Your task to perform on an android device: change the clock display to digital Image 0: 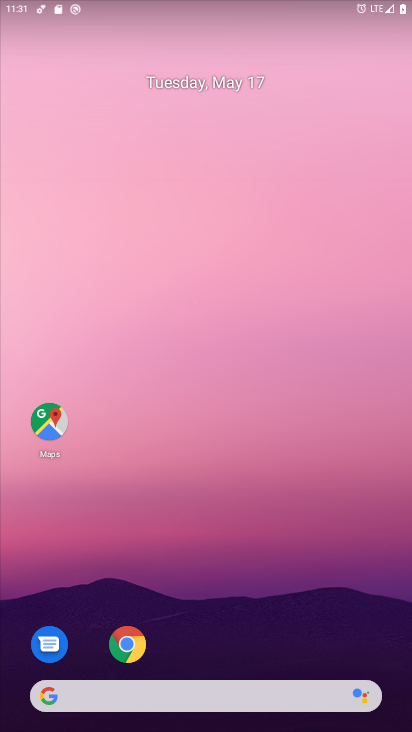
Step 0: drag from (211, 651) to (211, 1)
Your task to perform on an android device: change the clock display to digital Image 1: 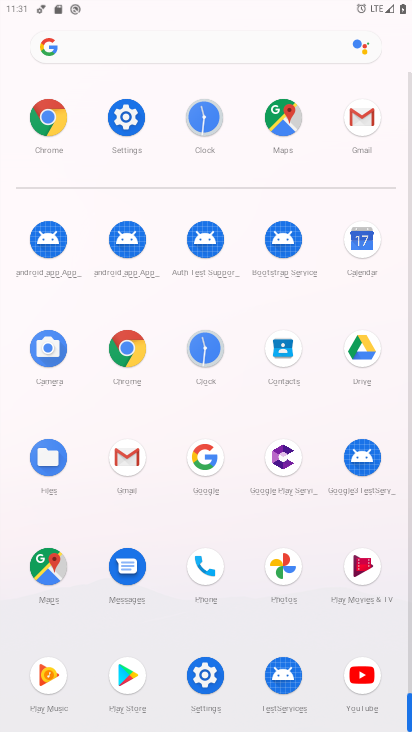
Step 1: click (203, 343)
Your task to perform on an android device: change the clock display to digital Image 2: 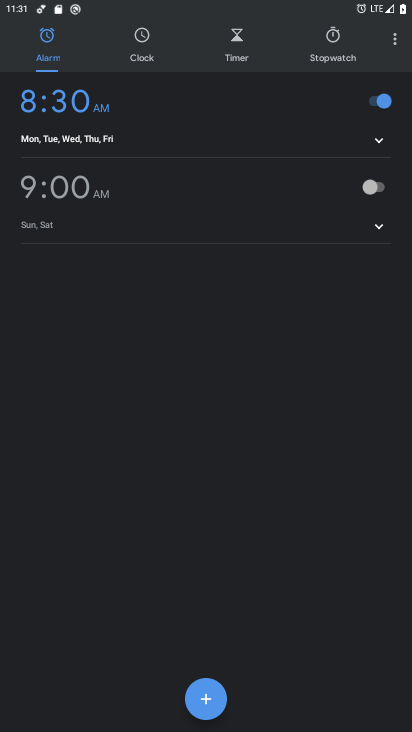
Step 2: click (379, 48)
Your task to perform on an android device: change the clock display to digital Image 3: 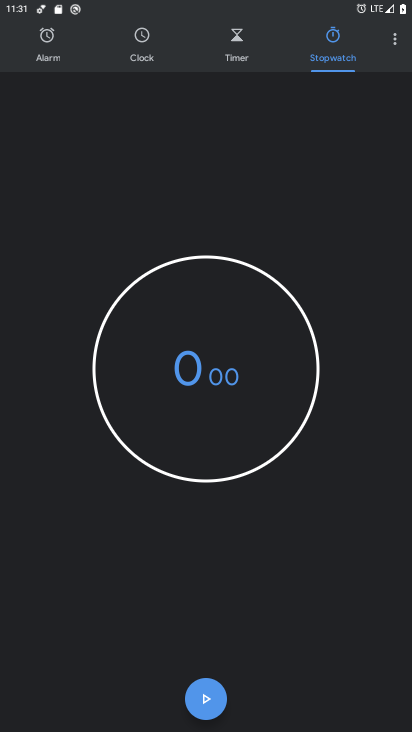
Step 3: click (397, 38)
Your task to perform on an android device: change the clock display to digital Image 4: 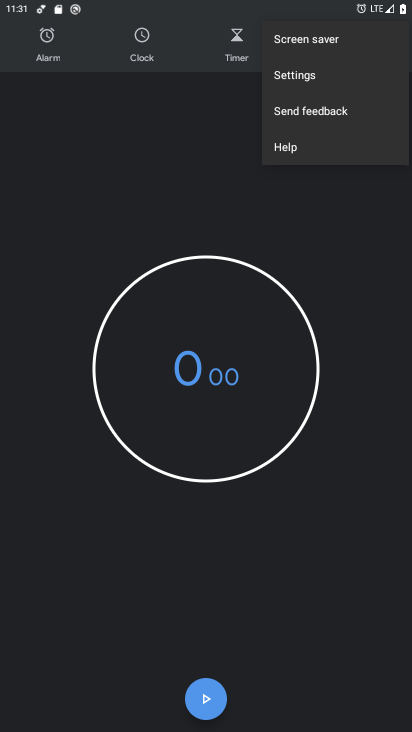
Step 4: click (324, 74)
Your task to perform on an android device: change the clock display to digital Image 5: 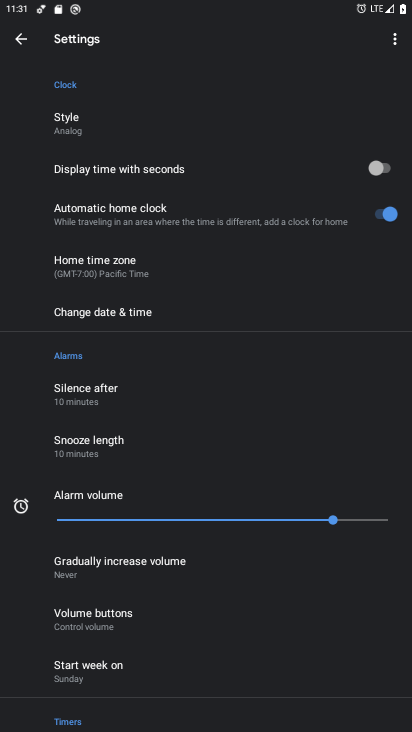
Step 5: click (100, 121)
Your task to perform on an android device: change the clock display to digital Image 6: 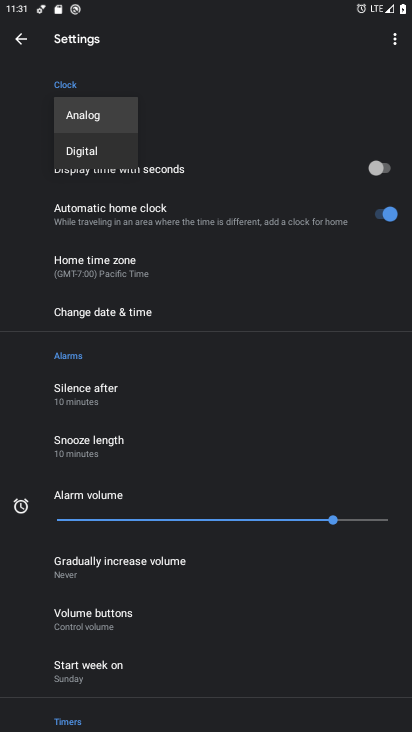
Step 6: click (102, 153)
Your task to perform on an android device: change the clock display to digital Image 7: 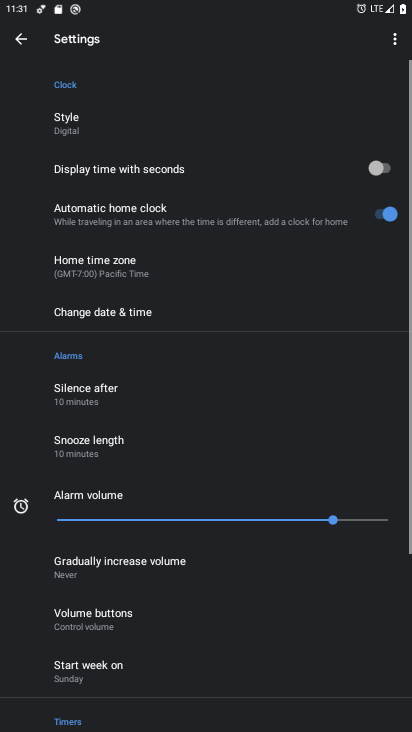
Step 7: task complete